Your task to perform on an android device: turn off wifi Image 0: 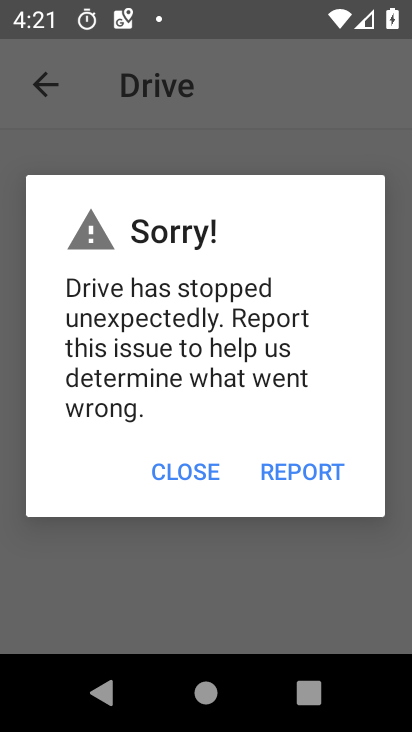
Step 0: drag from (331, 523) to (273, 12)
Your task to perform on an android device: turn off wifi Image 1: 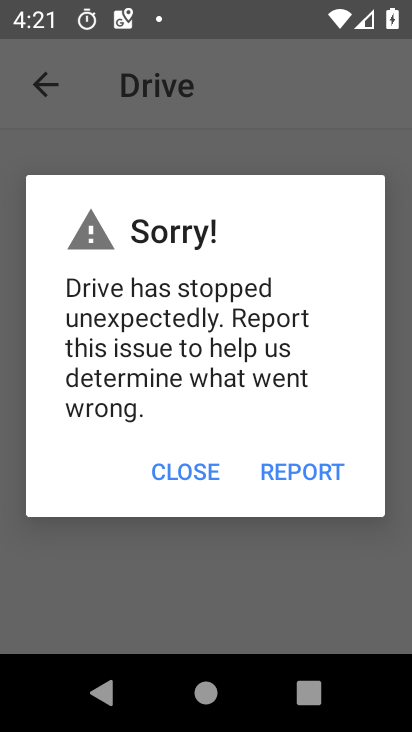
Step 1: press home button
Your task to perform on an android device: turn off wifi Image 2: 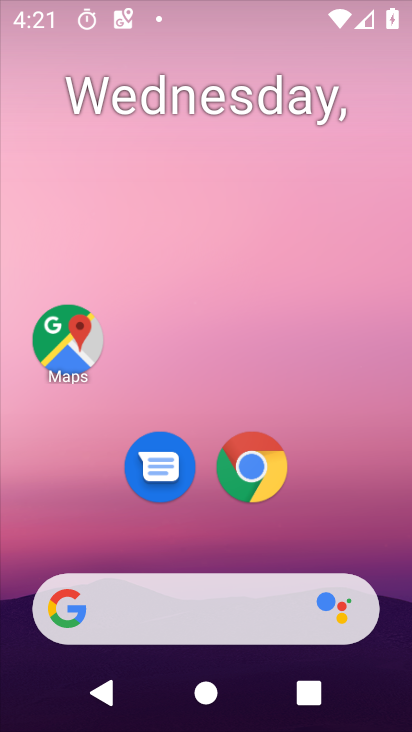
Step 2: drag from (292, 507) to (252, 13)
Your task to perform on an android device: turn off wifi Image 3: 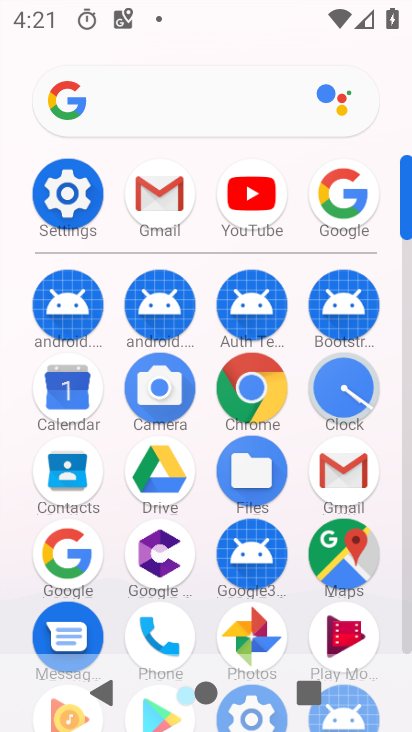
Step 3: click (74, 204)
Your task to perform on an android device: turn off wifi Image 4: 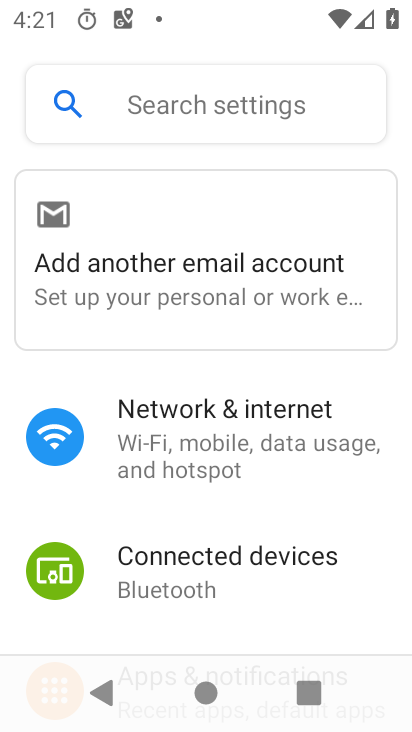
Step 4: click (183, 439)
Your task to perform on an android device: turn off wifi Image 5: 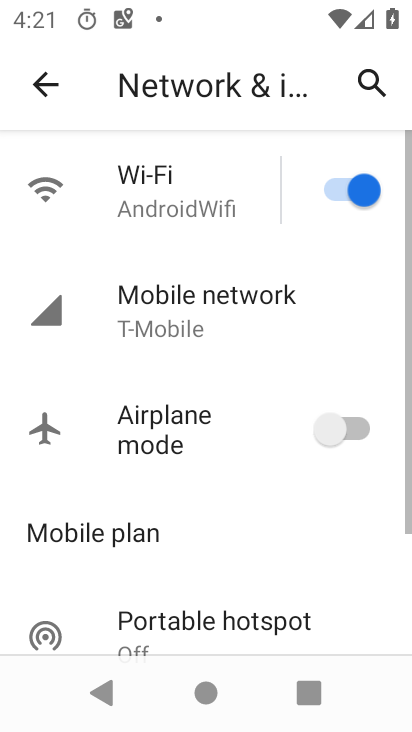
Step 5: click (339, 187)
Your task to perform on an android device: turn off wifi Image 6: 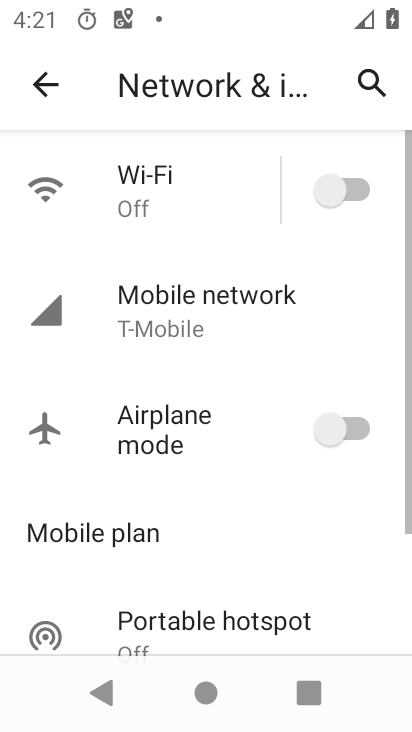
Step 6: task complete